Your task to perform on an android device: Open Android settings Image 0: 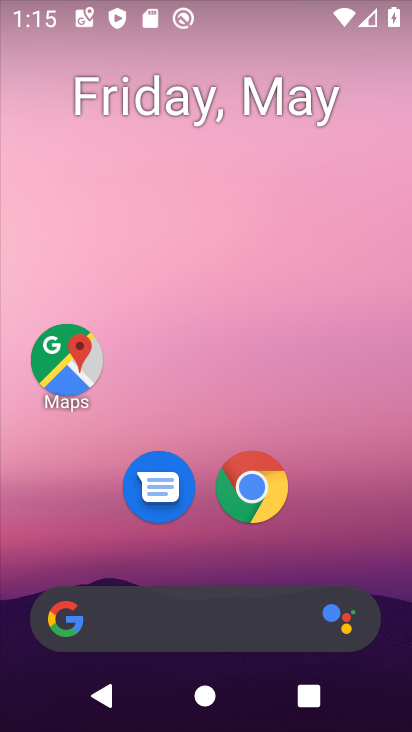
Step 0: drag from (183, 386) to (191, 47)
Your task to perform on an android device: Open Android settings Image 1: 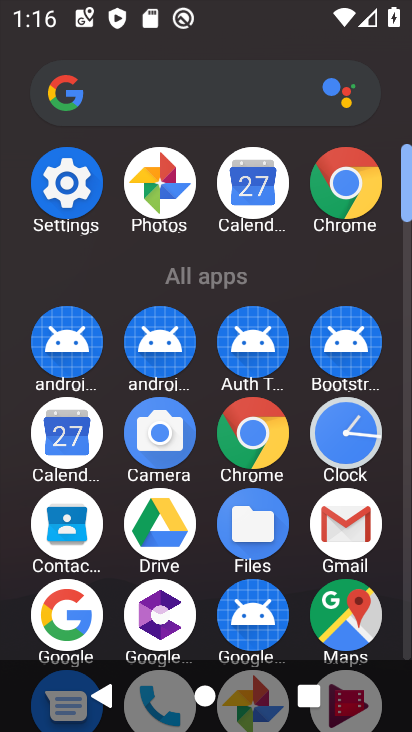
Step 1: click (83, 194)
Your task to perform on an android device: Open Android settings Image 2: 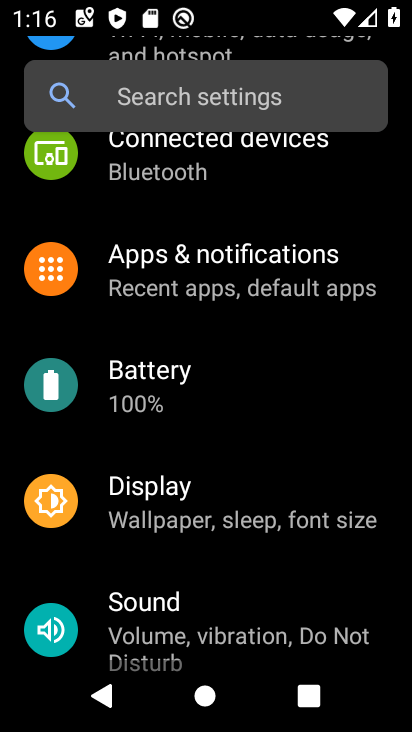
Step 2: task complete